Your task to perform on an android device: stop showing notifications on the lock screen Image 0: 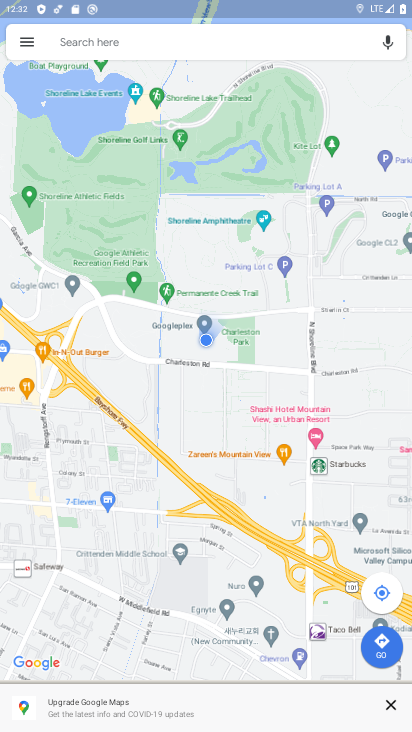
Step 0: press home button
Your task to perform on an android device: stop showing notifications on the lock screen Image 1: 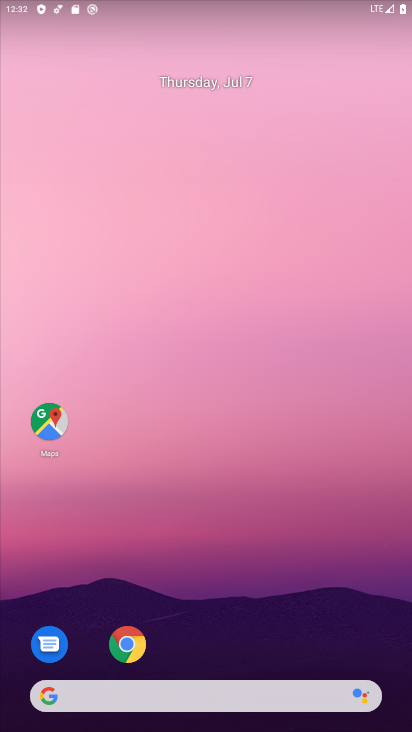
Step 1: drag from (392, 688) to (387, 235)
Your task to perform on an android device: stop showing notifications on the lock screen Image 2: 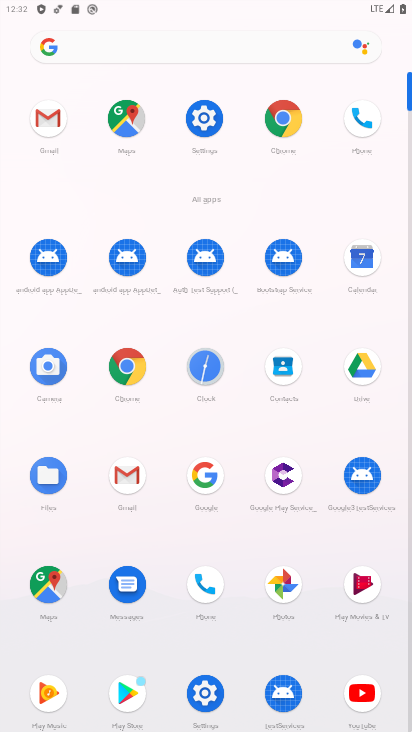
Step 2: click (192, 123)
Your task to perform on an android device: stop showing notifications on the lock screen Image 3: 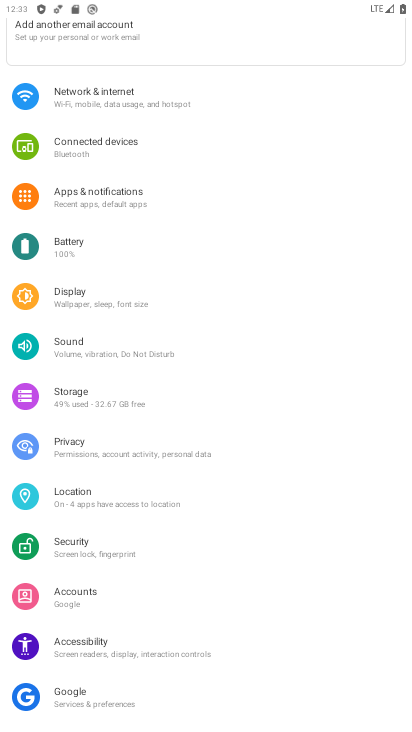
Step 3: click (95, 195)
Your task to perform on an android device: stop showing notifications on the lock screen Image 4: 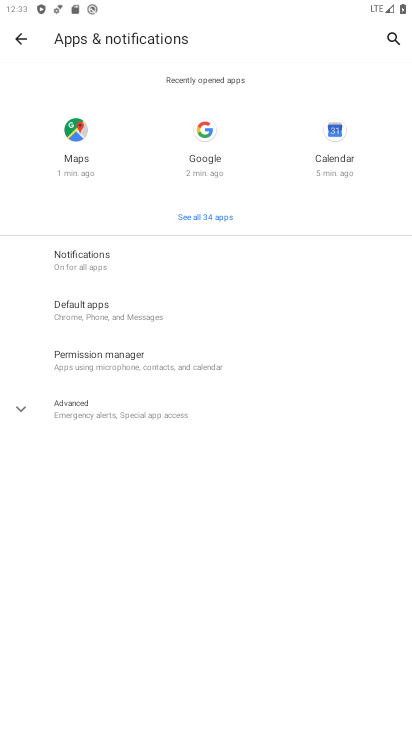
Step 4: click (96, 259)
Your task to perform on an android device: stop showing notifications on the lock screen Image 5: 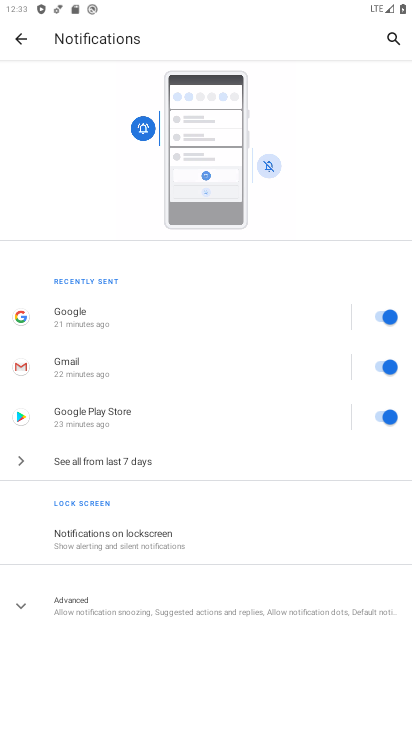
Step 5: click (85, 529)
Your task to perform on an android device: stop showing notifications on the lock screen Image 6: 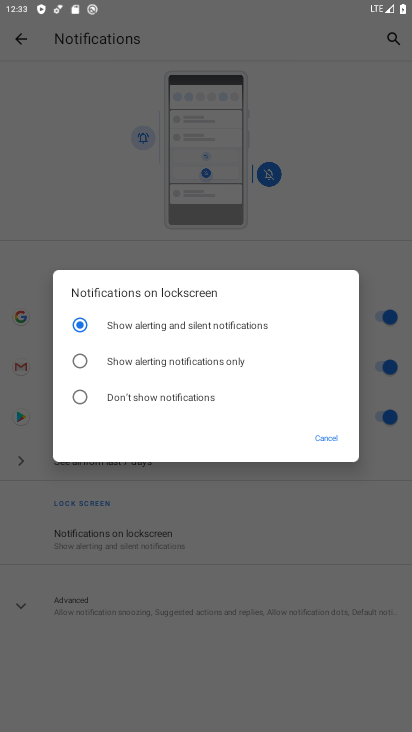
Step 6: click (83, 396)
Your task to perform on an android device: stop showing notifications on the lock screen Image 7: 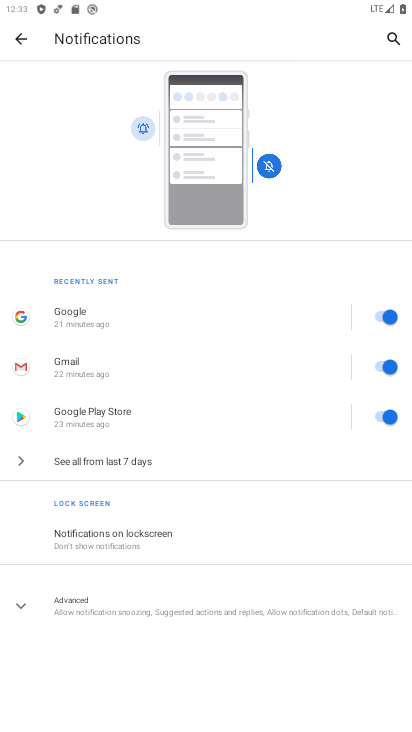
Step 7: task complete